Your task to perform on an android device: Do I have any events this weekend? Image 0: 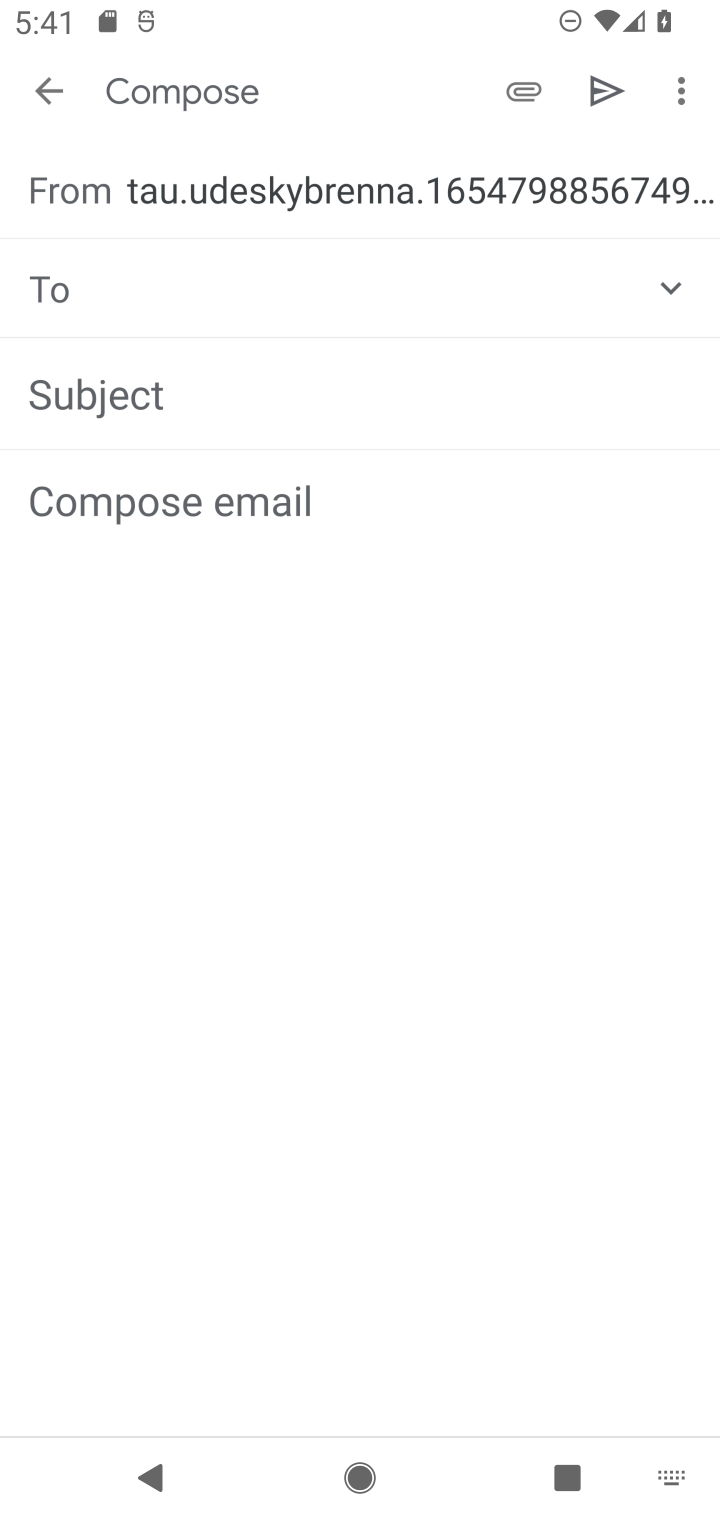
Step 0: press home button
Your task to perform on an android device: Do I have any events this weekend? Image 1: 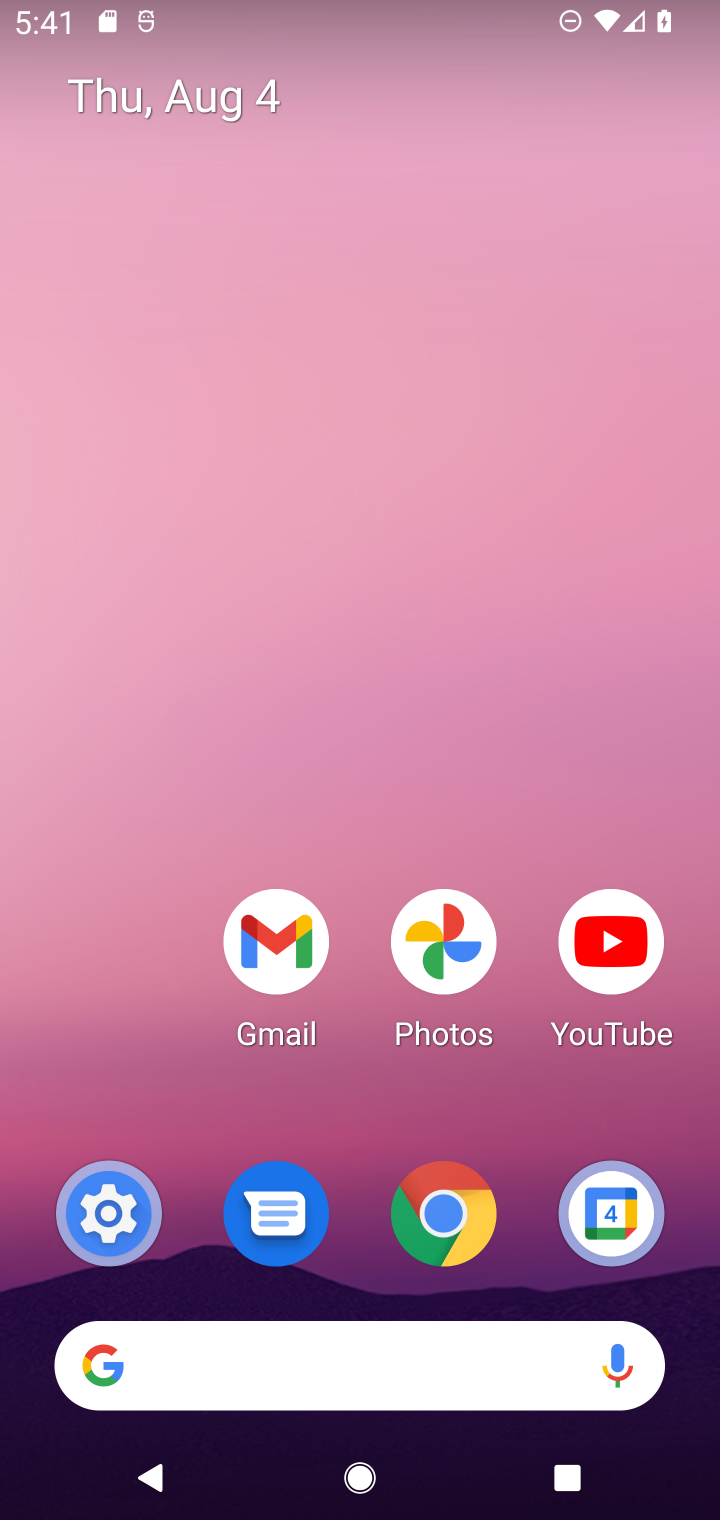
Step 1: drag from (181, 1104) to (183, 485)
Your task to perform on an android device: Do I have any events this weekend? Image 2: 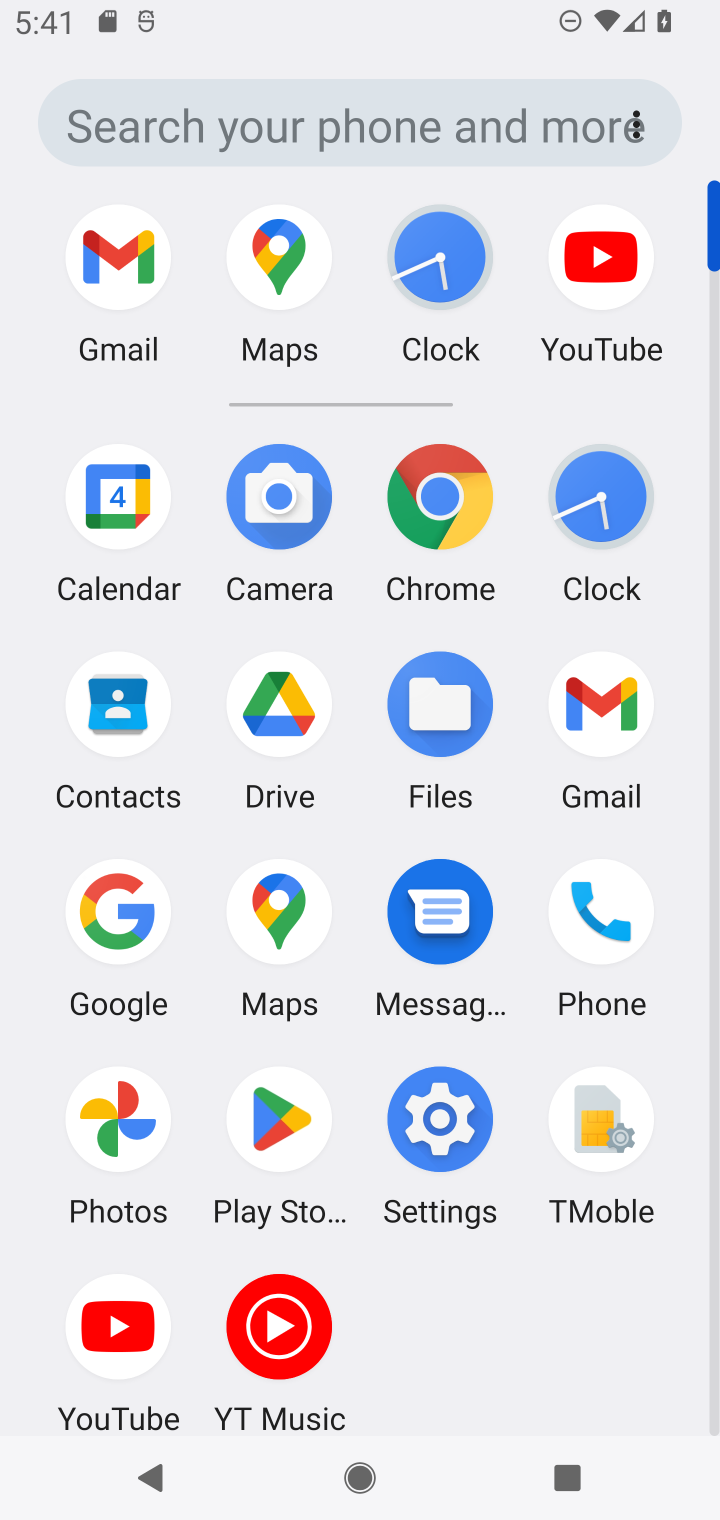
Step 2: click (120, 491)
Your task to perform on an android device: Do I have any events this weekend? Image 3: 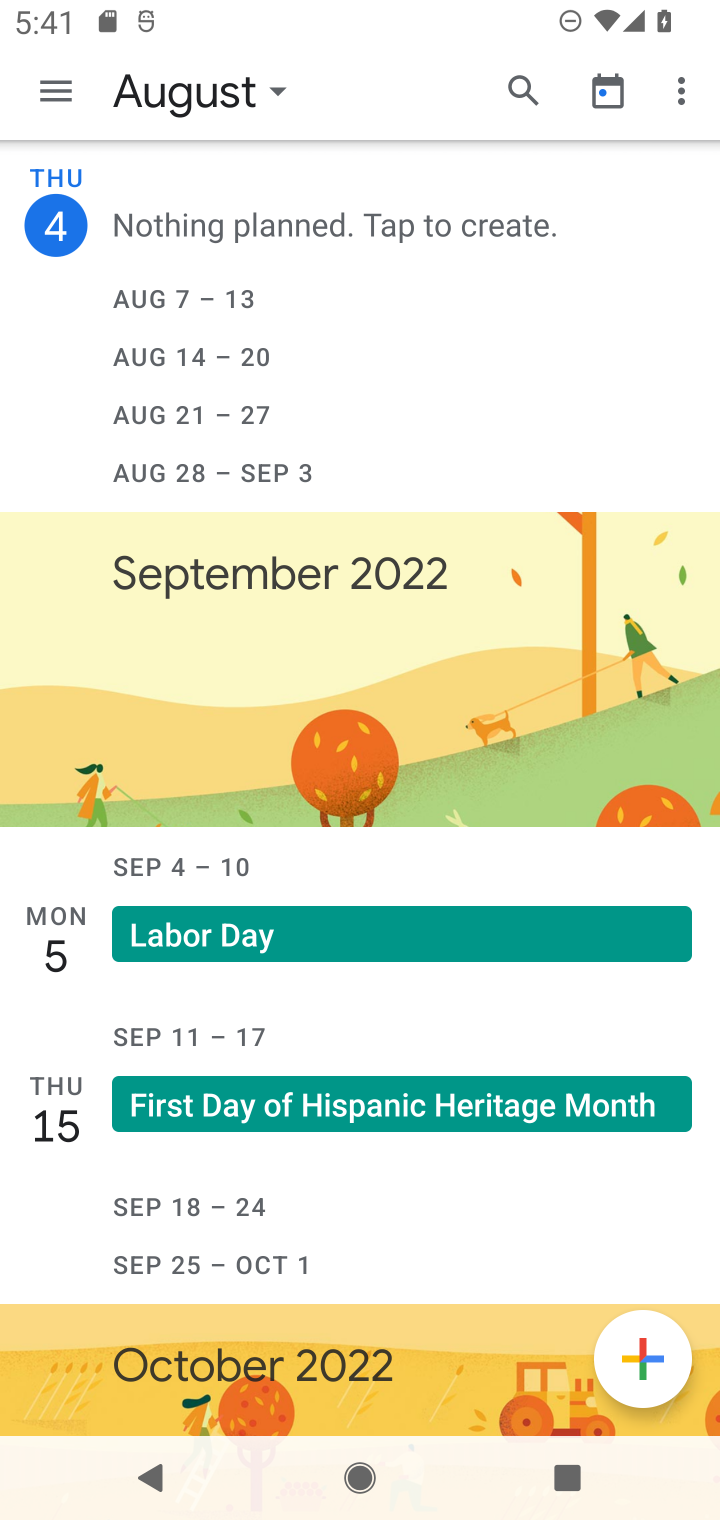
Step 3: task complete